Your task to perform on an android device: Go to privacy settings Image 0: 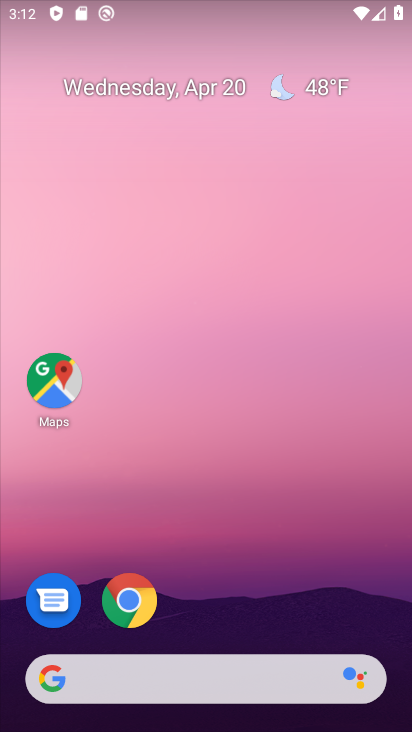
Step 0: drag from (276, 359) to (158, 10)
Your task to perform on an android device: Go to privacy settings Image 1: 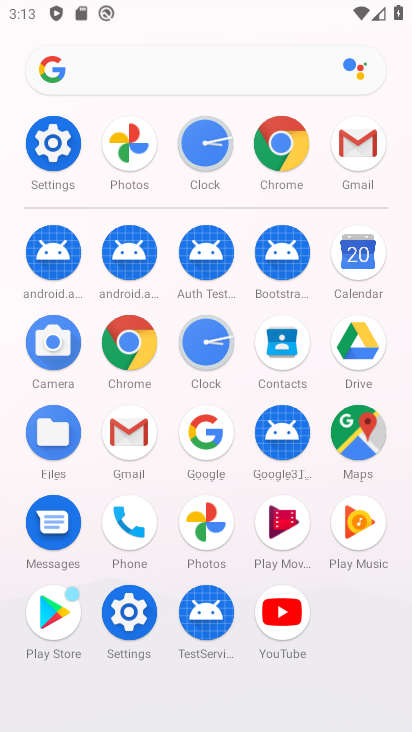
Step 1: click (29, 147)
Your task to perform on an android device: Go to privacy settings Image 2: 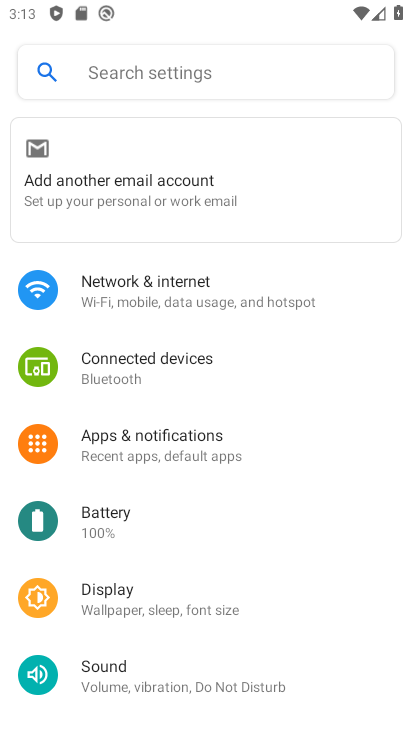
Step 2: drag from (167, 589) to (37, 167)
Your task to perform on an android device: Go to privacy settings Image 3: 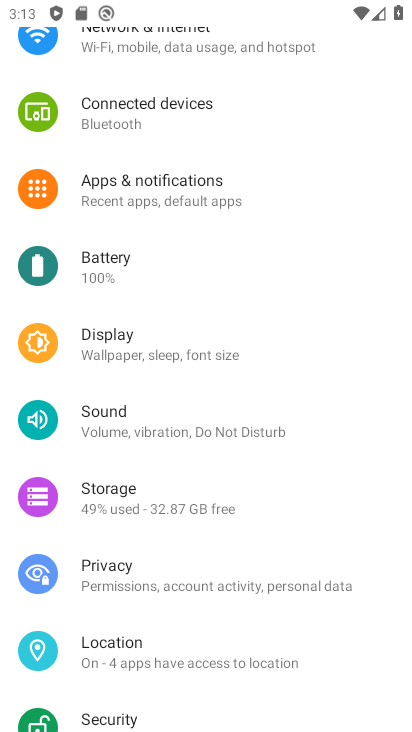
Step 3: drag from (247, 600) to (129, 195)
Your task to perform on an android device: Go to privacy settings Image 4: 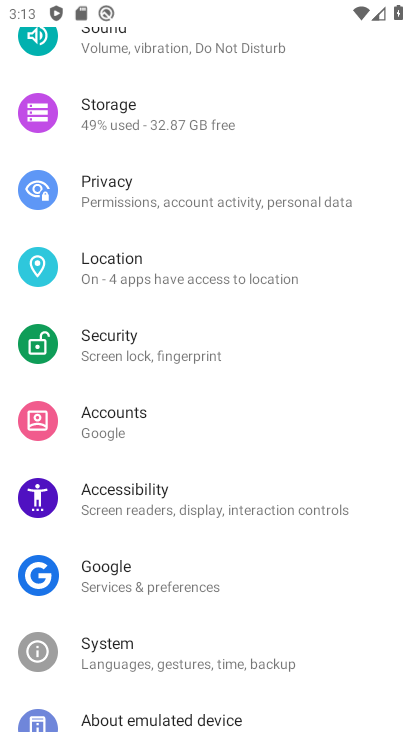
Step 4: click (71, 209)
Your task to perform on an android device: Go to privacy settings Image 5: 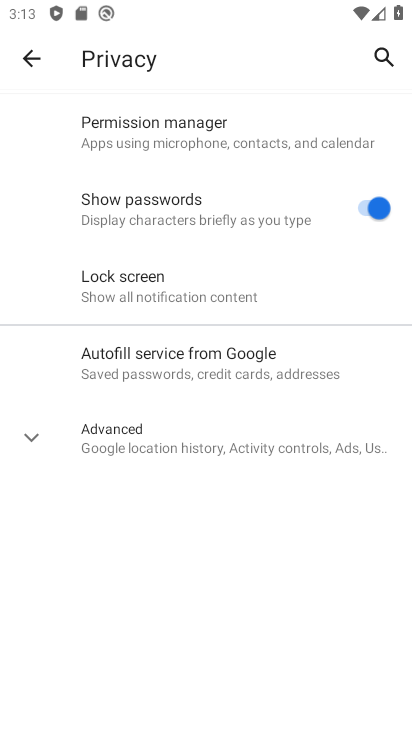
Step 5: task complete